Your task to perform on an android device: Open Google Chrome and open the bookmarks view Image 0: 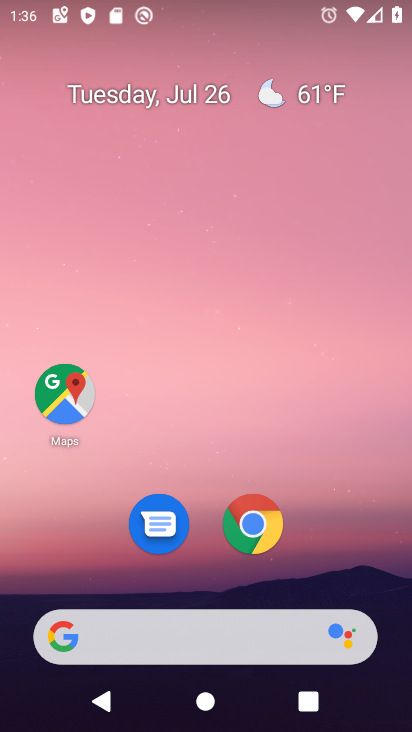
Step 0: click (253, 529)
Your task to perform on an android device: Open Google Chrome and open the bookmarks view Image 1: 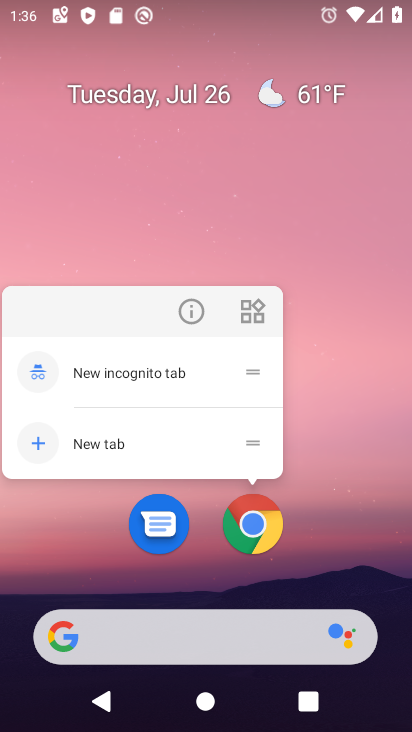
Step 1: click (252, 534)
Your task to perform on an android device: Open Google Chrome and open the bookmarks view Image 2: 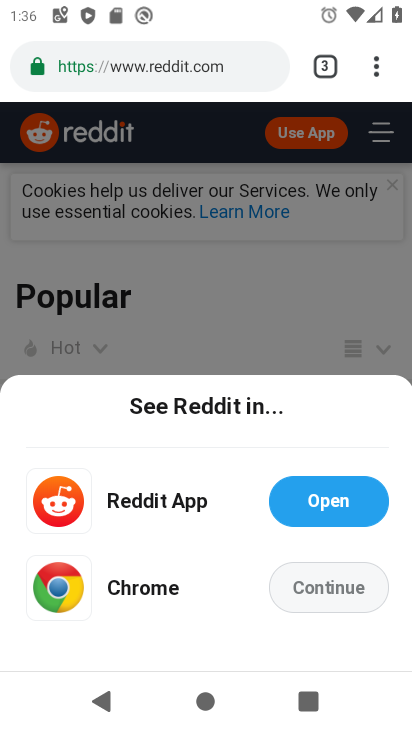
Step 2: task complete